Your task to perform on an android device: What is the recent news? Image 0: 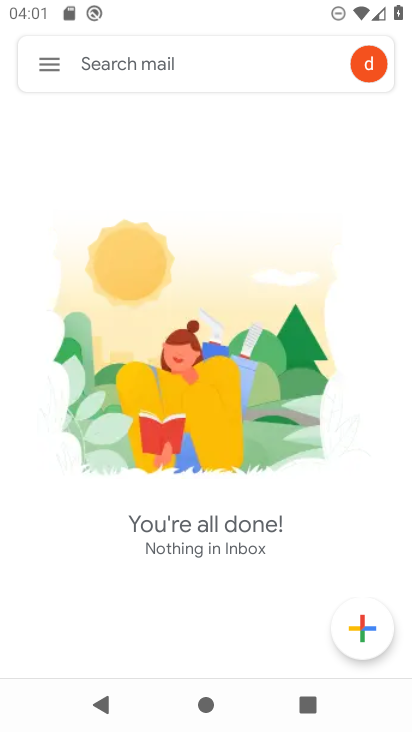
Step 0: press home button
Your task to perform on an android device: What is the recent news? Image 1: 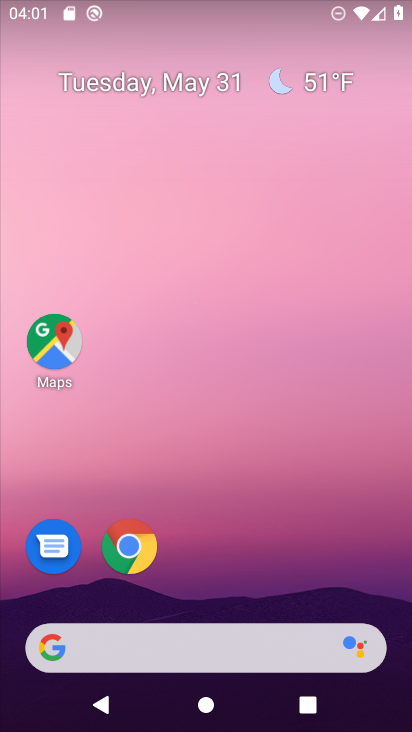
Step 1: click (222, 642)
Your task to perform on an android device: What is the recent news? Image 2: 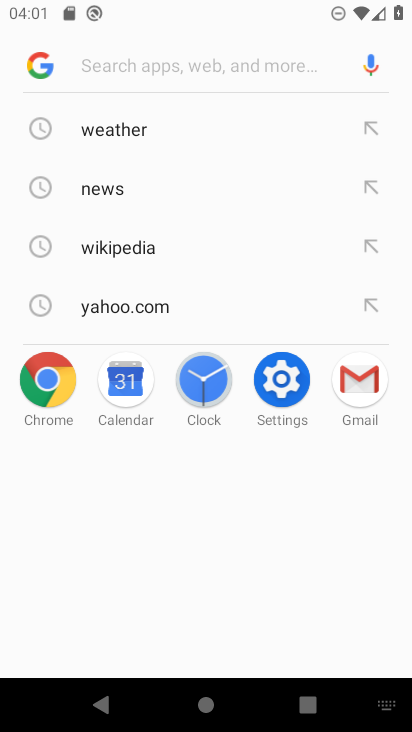
Step 2: type "recent news"
Your task to perform on an android device: What is the recent news? Image 3: 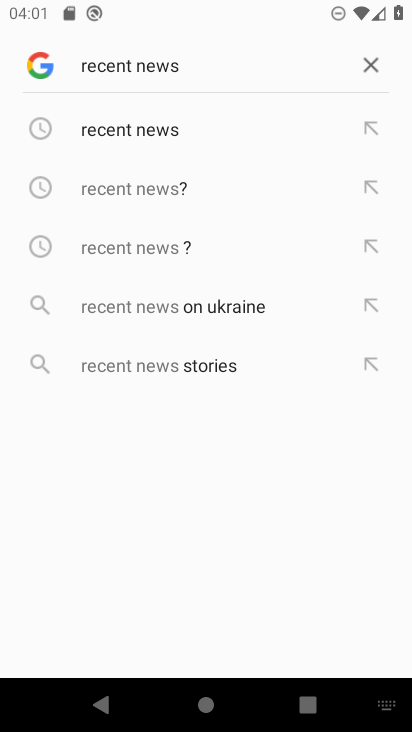
Step 3: click (107, 127)
Your task to perform on an android device: What is the recent news? Image 4: 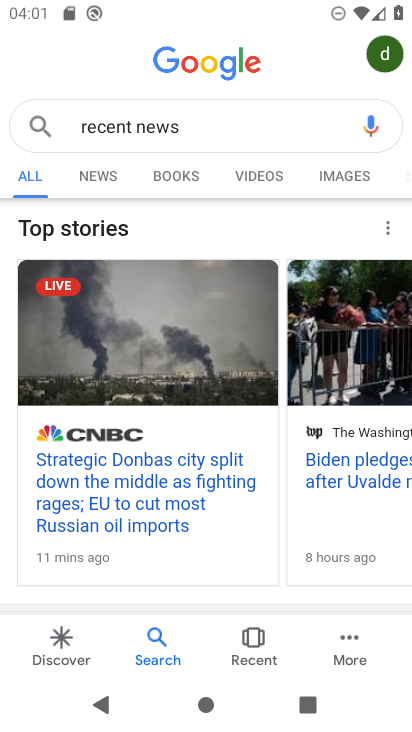
Step 4: task complete